Your task to perform on an android device: What's the weather going to be this weekend? Image 0: 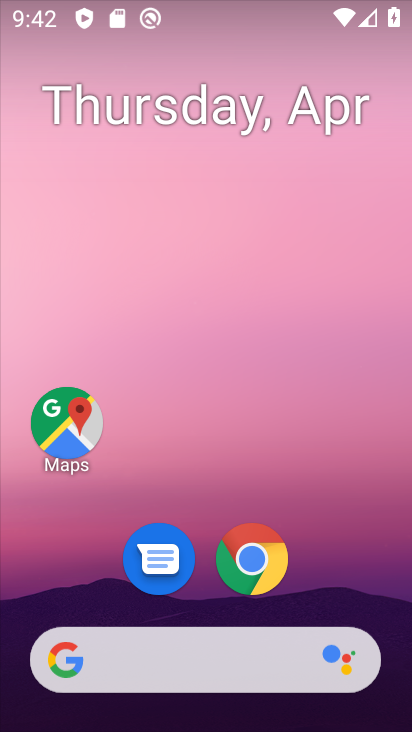
Step 0: drag from (0, 214) to (372, 239)
Your task to perform on an android device: What's the weather going to be this weekend? Image 1: 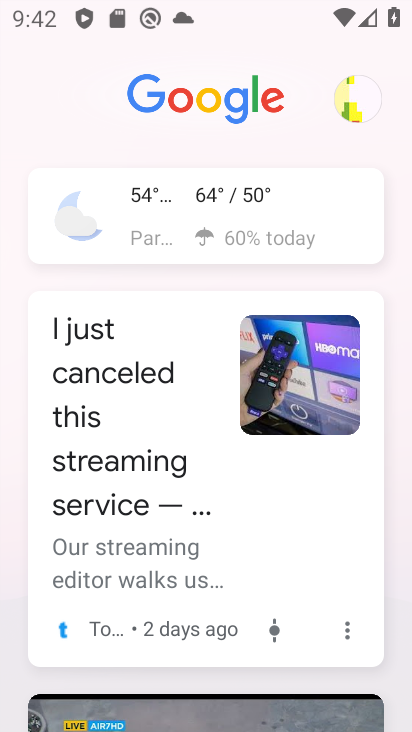
Step 1: click (233, 214)
Your task to perform on an android device: What's the weather going to be this weekend? Image 2: 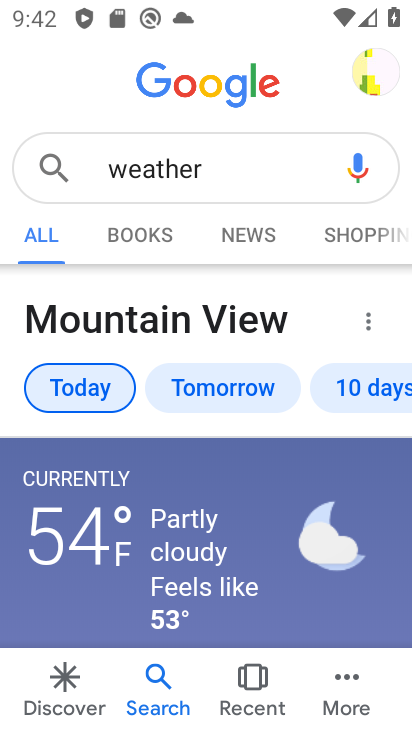
Step 2: click (344, 385)
Your task to perform on an android device: What's the weather going to be this weekend? Image 3: 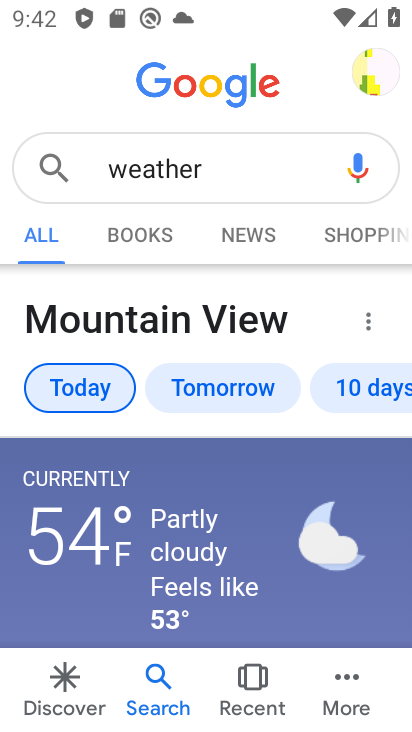
Step 3: click (366, 387)
Your task to perform on an android device: What's the weather going to be this weekend? Image 4: 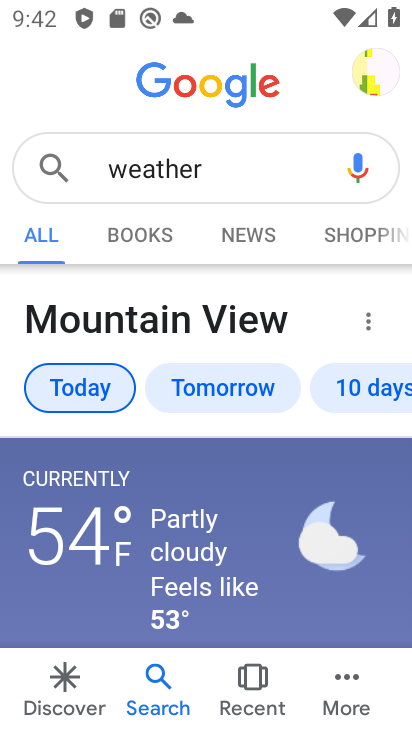
Step 4: click (382, 392)
Your task to perform on an android device: What's the weather going to be this weekend? Image 5: 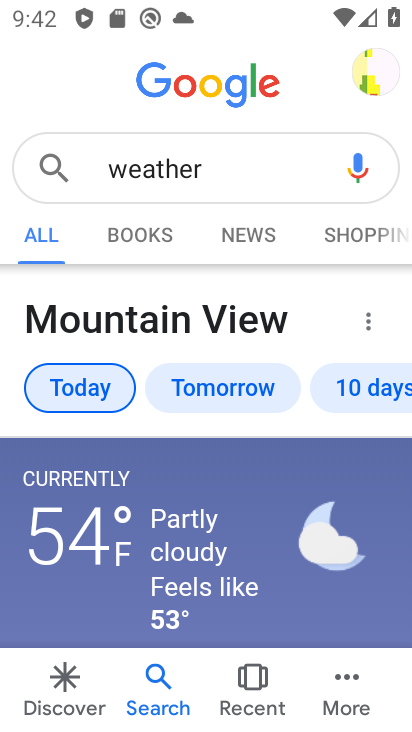
Step 5: drag from (95, 617) to (182, 29)
Your task to perform on an android device: What's the weather going to be this weekend? Image 6: 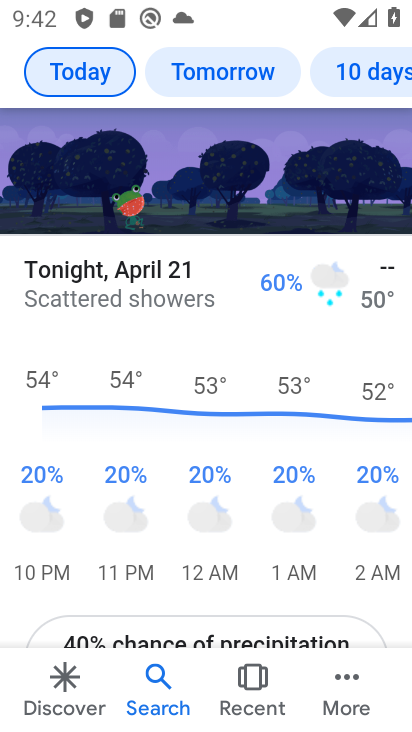
Step 6: click (364, 72)
Your task to perform on an android device: What's the weather going to be this weekend? Image 7: 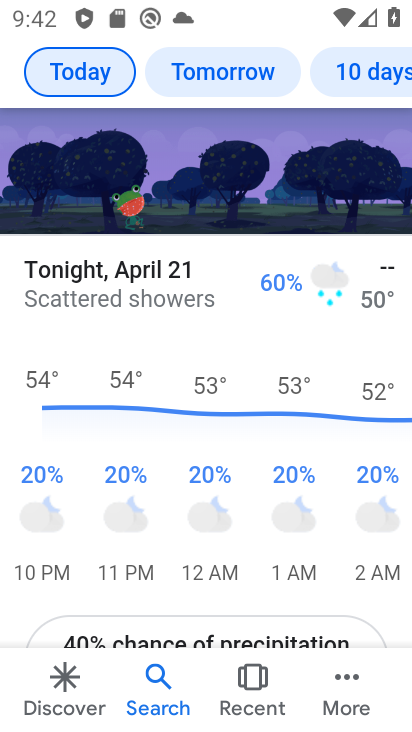
Step 7: click (365, 71)
Your task to perform on an android device: What's the weather going to be this weekend? Image 8: 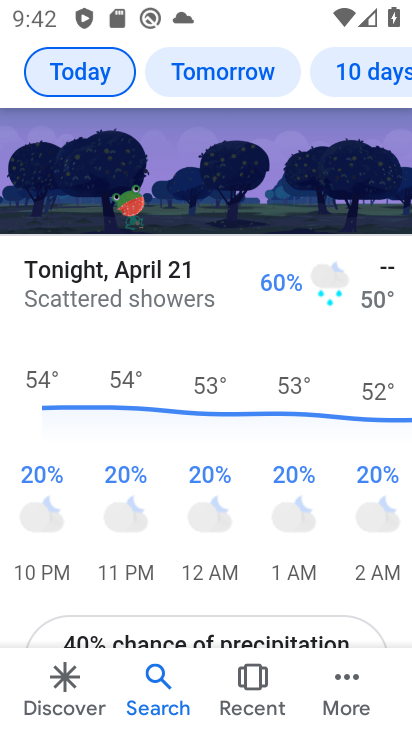
Step 8: click (380, 59)
Your task to perform on an android device: What's the weather going to be this weekend? Image 9: 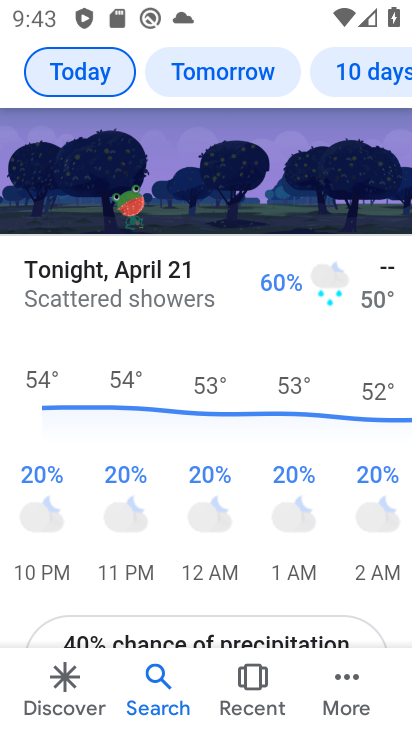
Step 9: drag from (200, 501) to (240, 224)
Your task to perform on an android device: What's the weather going to be this weekend? Image 10: 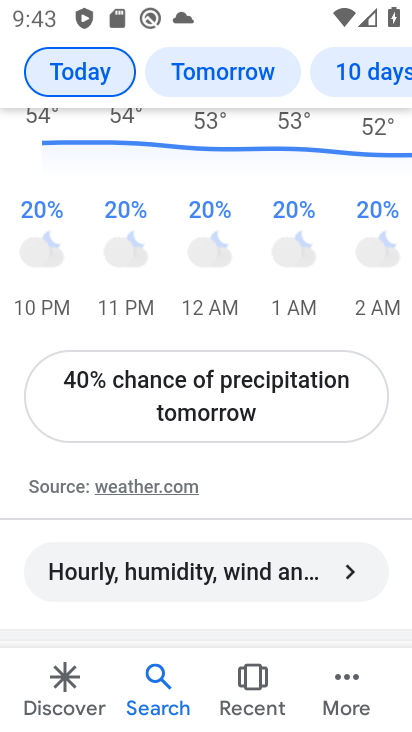
Step 10: drag from (226, 497) to (213, 155)
Your task to perform on an android device: What's the weather going to be this weekend? Image 11: 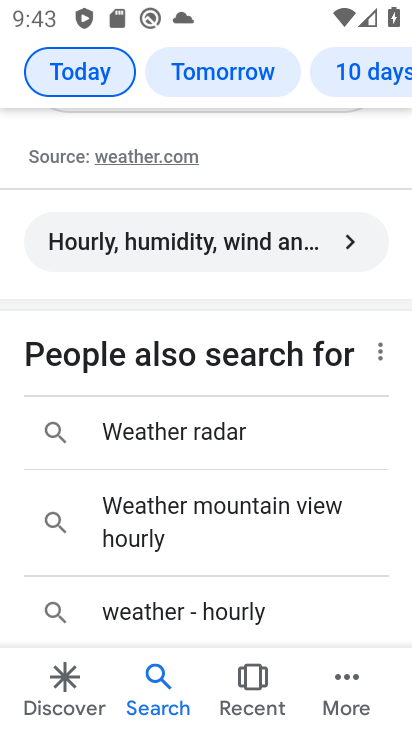
Step 11: drag from (204, 505) to (133, 110)
Your task to perform on an android device: What's the weather going to be this weekend? Image 12: 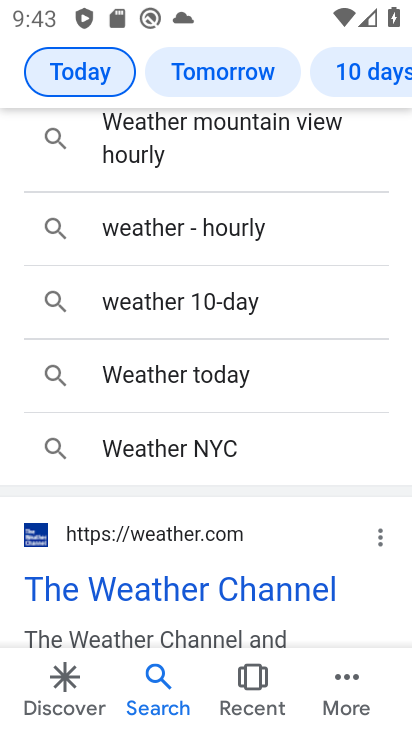
Step 12: click (165, 307)
Your task to perform on an android device: What's the weather going to be this weekend? Image 13: 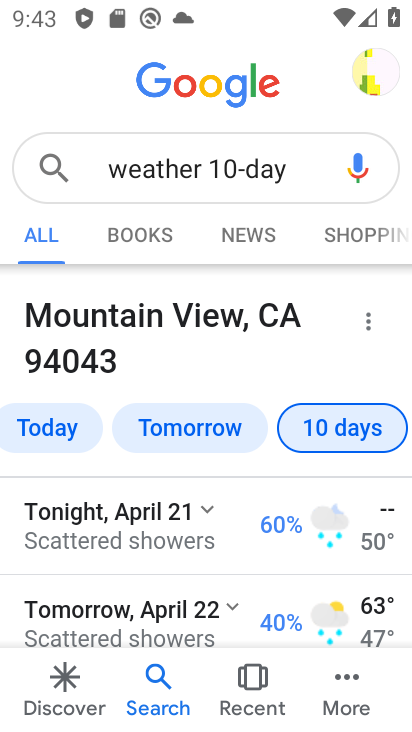
Step 13: task complete